Your task to perform on an android device: check android version Image 0: 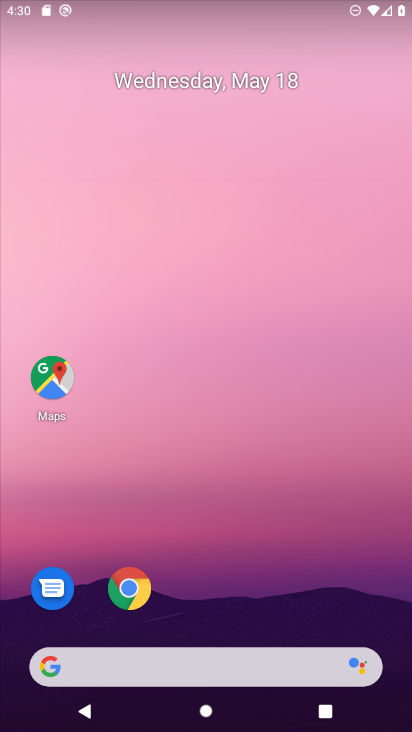
Step 0: drag from (211, 589) to (230, 178)
Your task to perform on an android device: check android version Image 1: 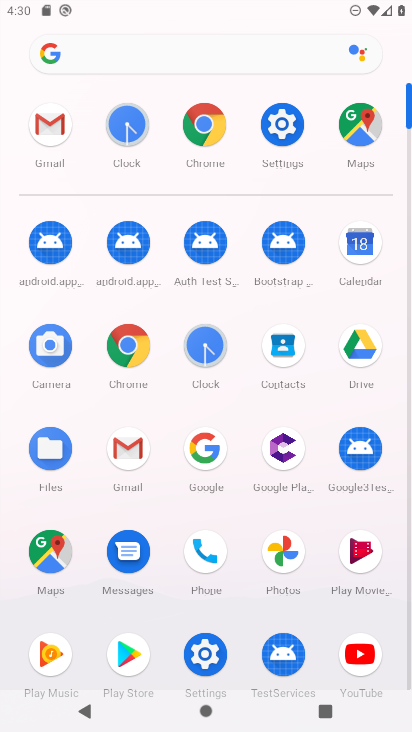
Step 1: click (204, 150)
Your task to perform on an android device: check android version Image 2: 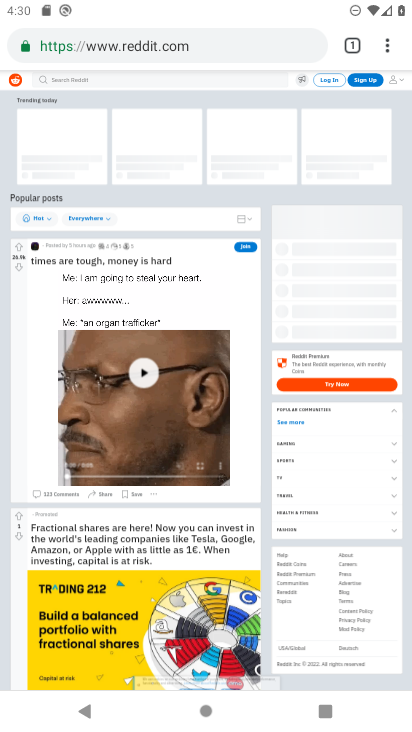
Step 2: click (383, 48)
Your task to perform on an android device: check android version Image 3: 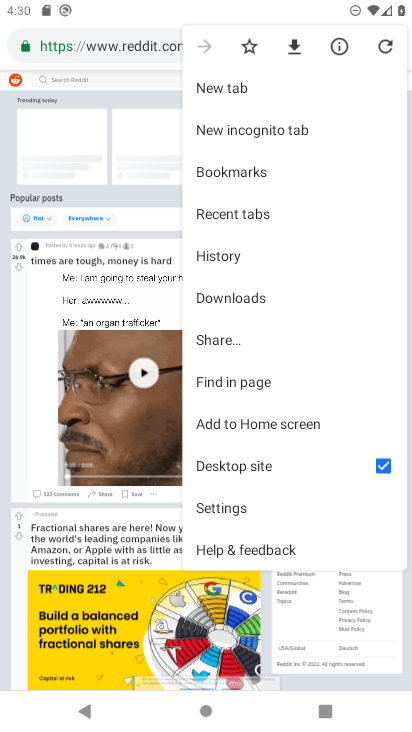
Step 3: click (257, 542)
Your task to perform on an android device: check android version Image 4: 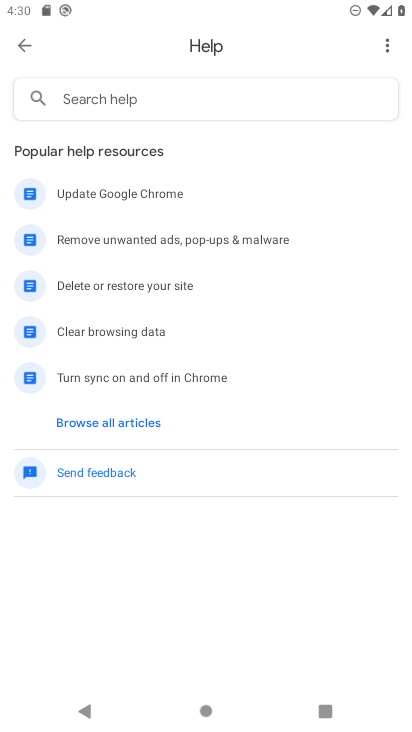
Step 4: click (377, 51)
Your task to perform on an android device: check android version Image 5: 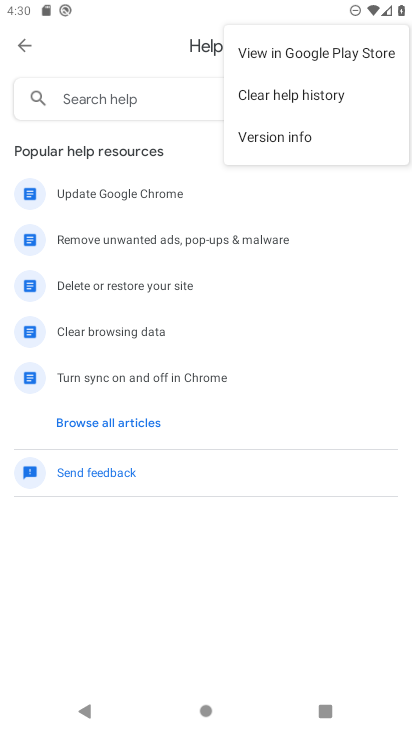
Step 5: click (312, 126)
Your task to perform on an android device: check android version Image 6: 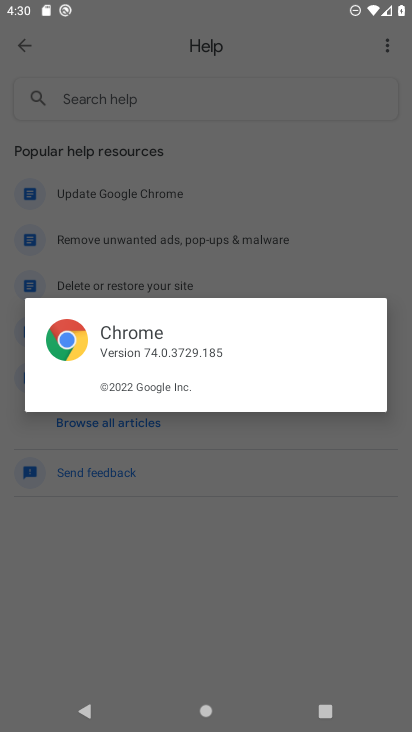
Step 6: task complete